Your task to perform on an android device: change alarm snooze length Image 0: 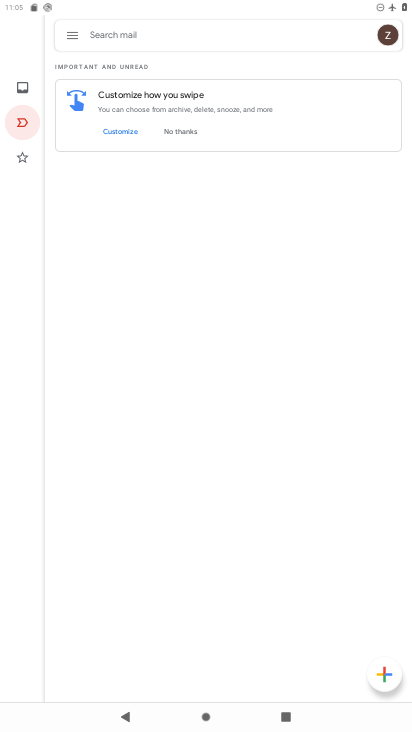
Step 0: press home button
Your task to perform on an android device: change alarm snooze length Image 1: 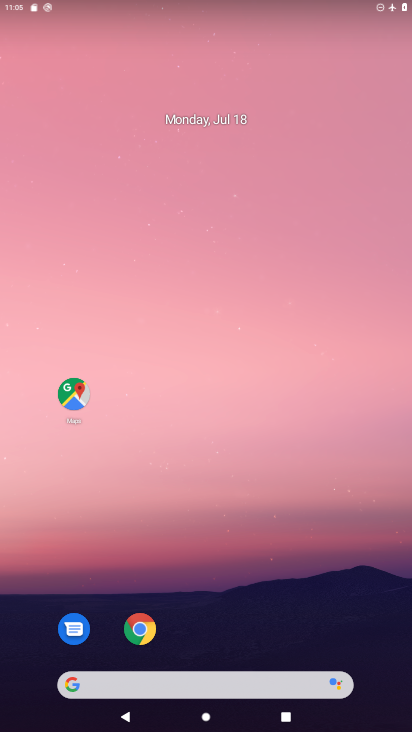
Step 1: drag from (304, 509) to (301, 44)
Your task to perform on an android device: change alarm snooze length Image 2: 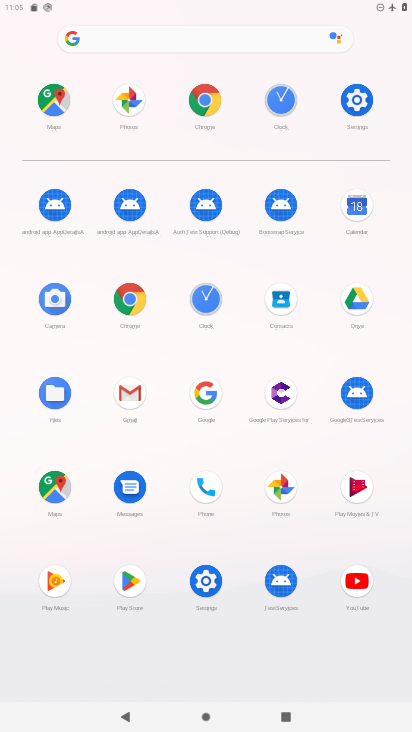
Step 2: click (208, 292)
Your task to perform on an android device: change alarm snooze length Image 3: 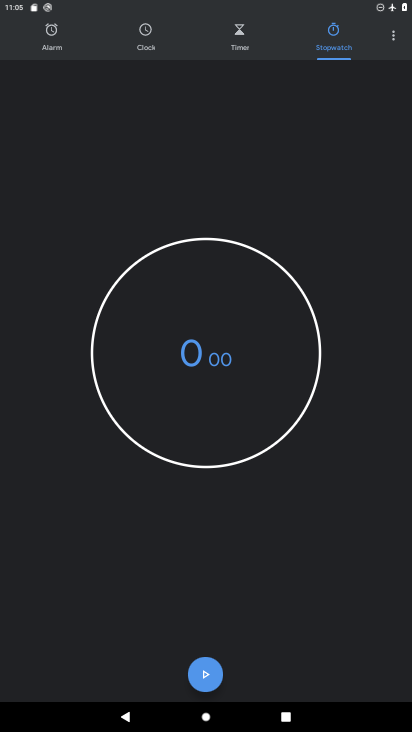
Step 3: click (391, 38)
Your task to perform on an android device: change alarm snooze length Image 4: 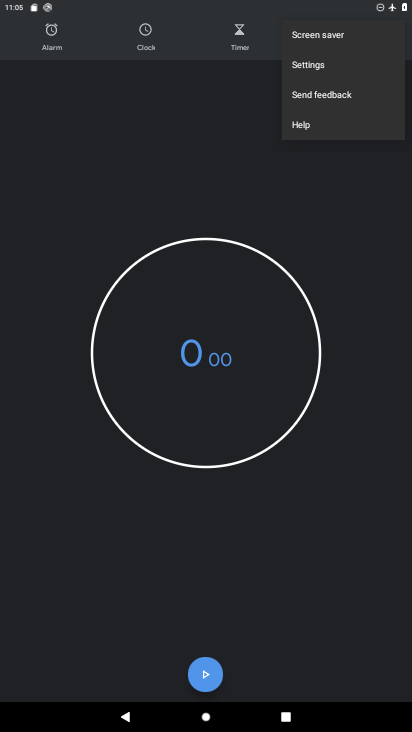
Step 4: click (305, 69)
Your task to perform on an android device: change alarm snooze length Image 5: 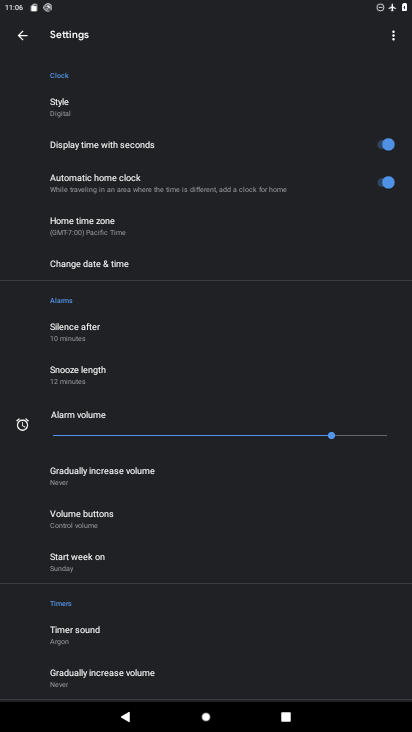
Step 5: click (66, 381)
Your task to perform on an android device: change alarm snooze length Image 6: 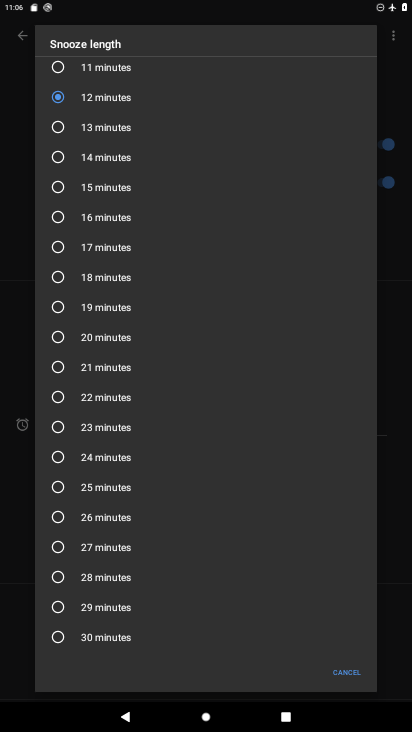
Step 6: click (72, 131)
Your task to perform on an android device: change alarm snooze length Image 7: 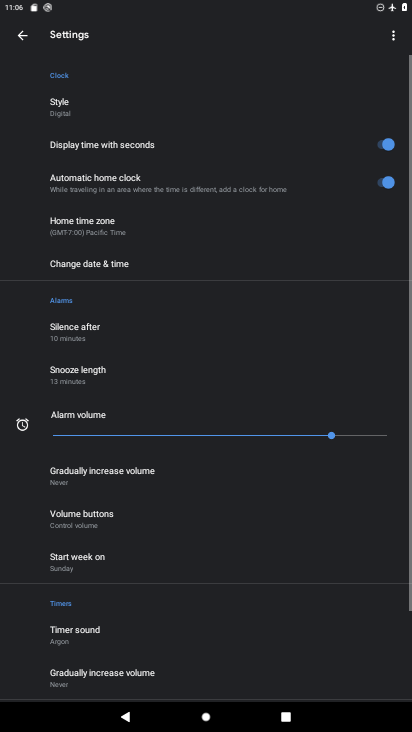
Step 7: task complete